Your task to perform on an android device: Find coffee shops on Maps Image 0: 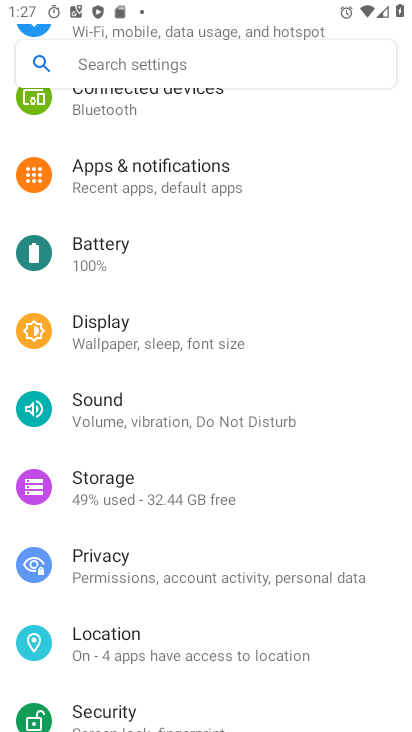
Step 0: press home button
Your task to perform on an android device: Find coffee shops on Maps Image 1: 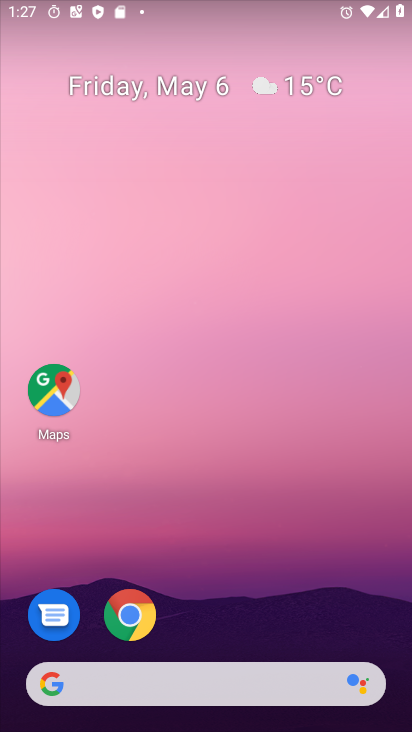
Step 1: drag from (281, 570) to (294, 49)
Your task to perform on an android device: Find coffee shops on Maps Image 2: 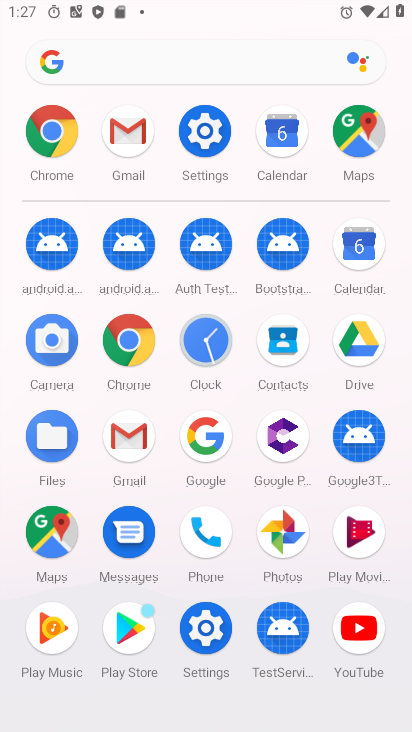
Step 2: click (36, 529)
Your task to perform on an android device: Find coffee shops on Maps Image 3: 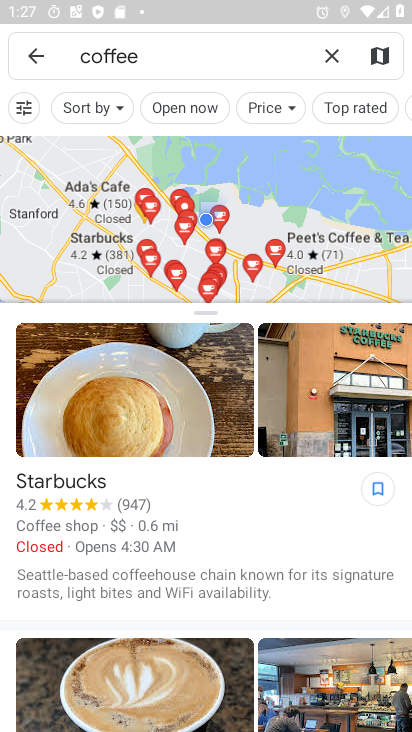
Step 3: task complete